Your task to perform on an android device: toggle priority inbox in the gmail app Image 0: 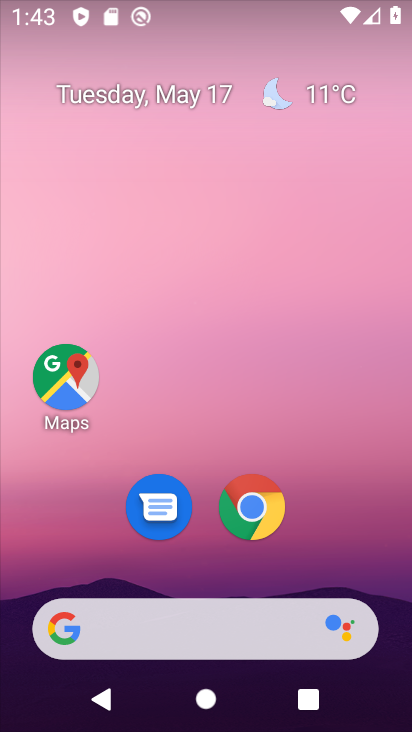
Step 0: drag from (202, 578) to (197, 67)
Your task to perform on an android device: toggle priority inbox in the gmail app Image 1: 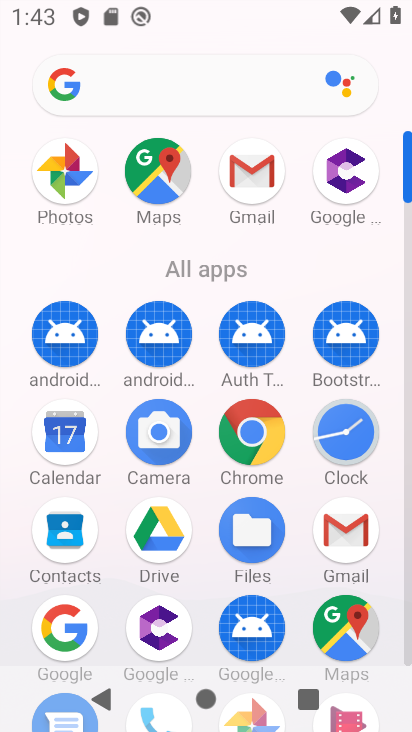
Step 1: click (252, 149)
Your task to perform on an android device: toggle priority inbox in the gmail app Image 2: 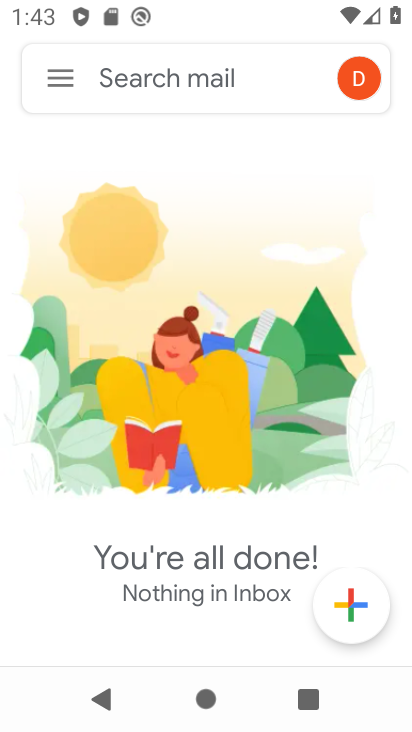
Step 2: click (65, 72)
Your task to perform on an android device: toggle priority inbox in the gmail app Image 3: 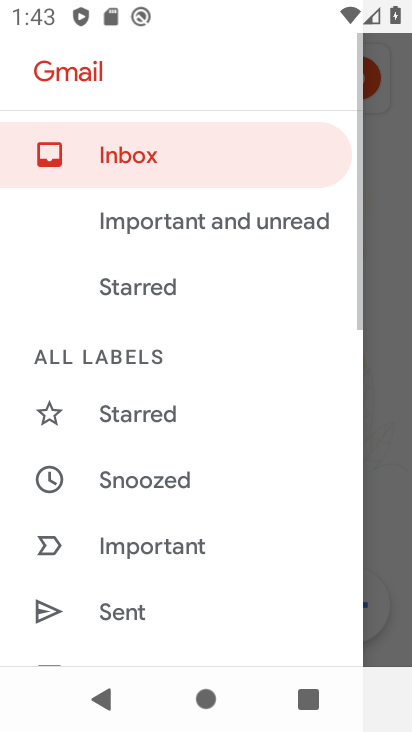
Step 3: drag from (120, 620) to (190, 154)
Your task to perform on an android device: toggle priority inbox in the gmail app Image 4: 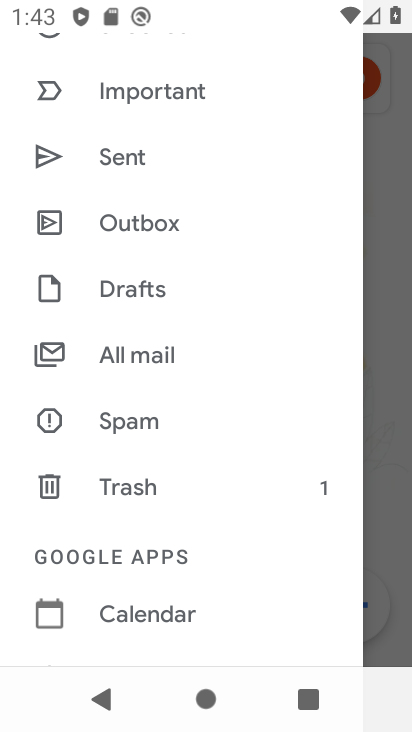
Step 4: drag from (81, 643) to (171, 248)
Your task to perform on an android device: toggle priority inbox in the gmail app Image 5: 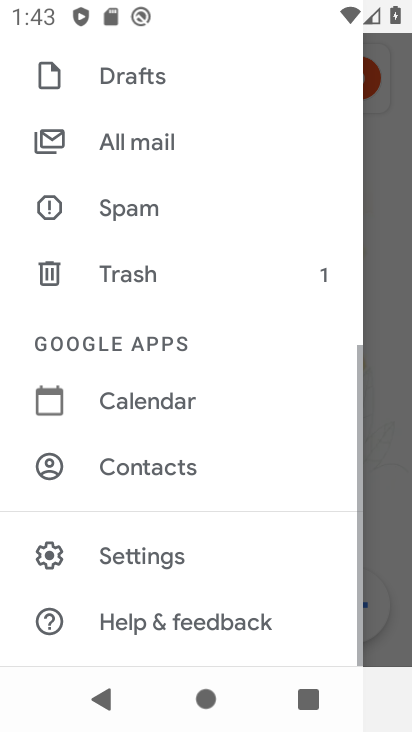
Step 5: click (156, 562)
Your task to perform on an android device: toggle priority inbox in the gmail app Image 6: 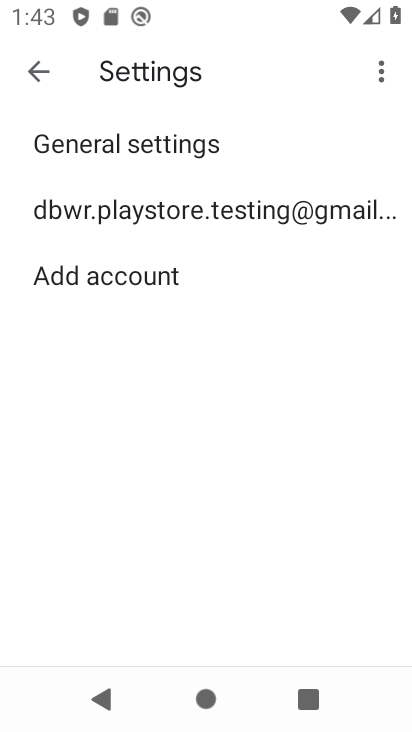
Step 6: click (200, 215)
Your task to perform on an android device: toggle priority inbox in the gmail app Image 7: 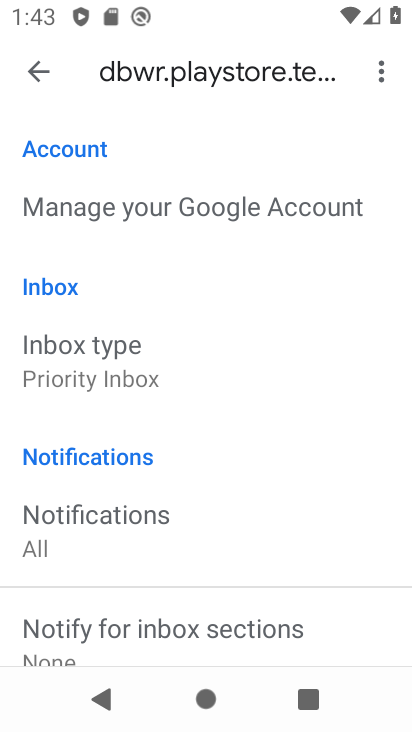
Step 7: click (181, 367)
Your task to perform on an android device: toggle priority inbox in the gmail app Image 8: 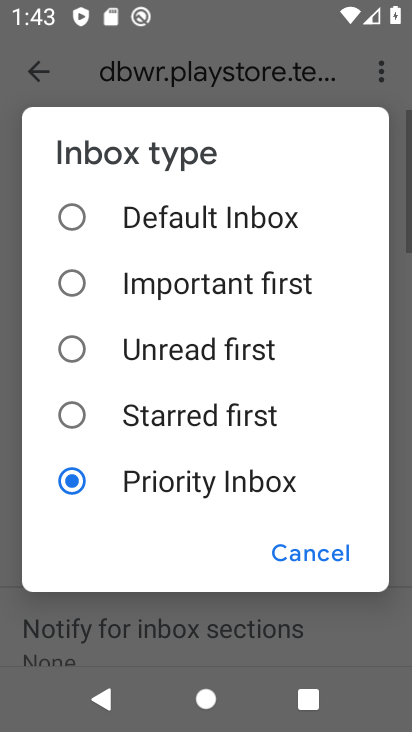
Step 8: click (179, 364)
Your task to perform on an android device: toggle priority inbox in the gmail app Image 9: 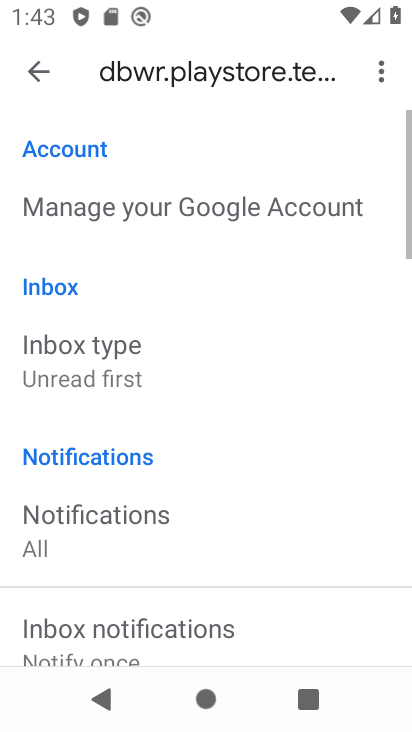
Step 9: task complete